Your task to perform on an android device: Open eBay Image 0: 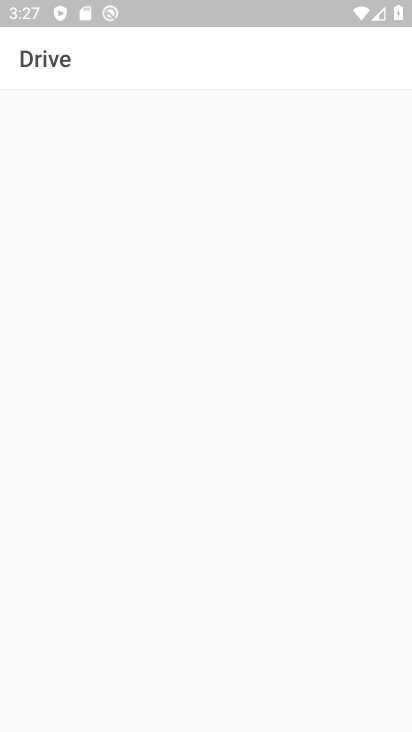
Step 0: press home button
Your task to perform on an android device: Open eBay Image 1: 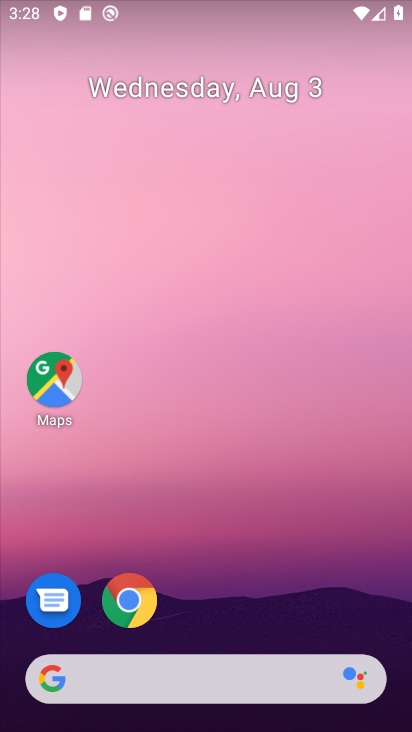
Step 1: drag from (213, 644) to (193, 270)
Your task to perform on an android device: Open eBay Image 2: 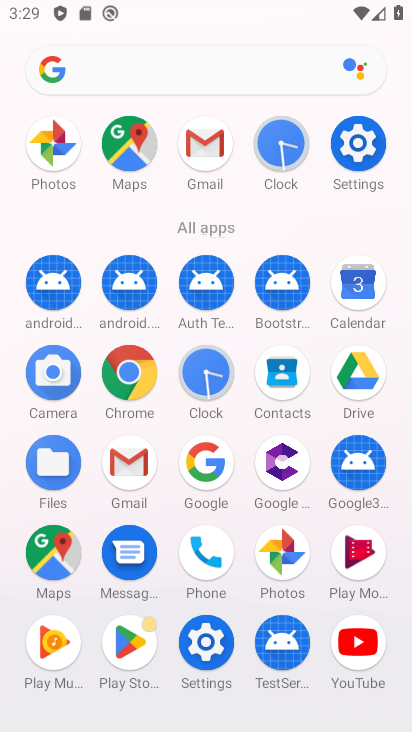
Step 2: click (127, 371)
Your task to perform on an android device: Open eBay Image 3: 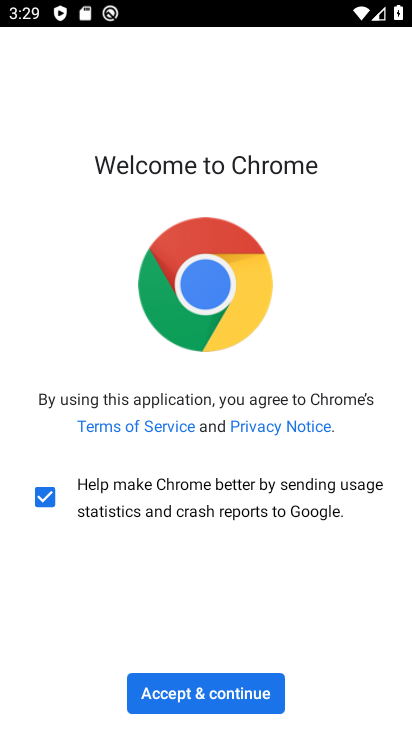
Step 3: press home button
Your task to perform on an android device: Open eBay Image 4: 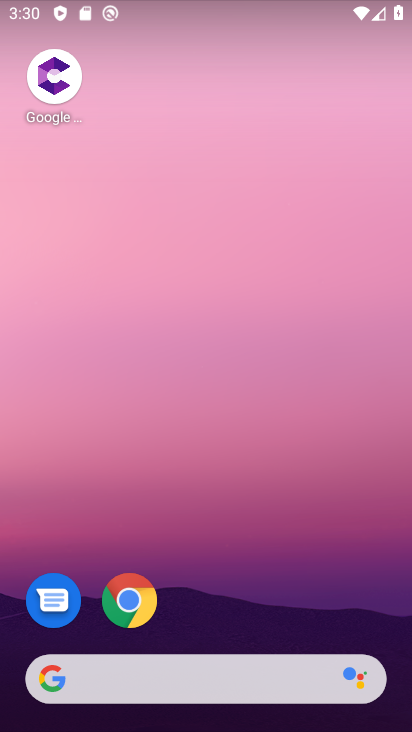
Step 4: click (134, 590)
Your task to perform on an android device: Open eBay Image 5: 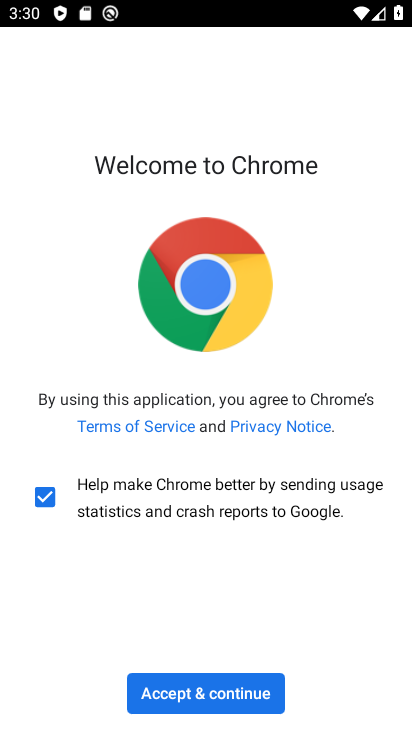
Step 5: click (267, 684)
Your task to perform on an android device: Open eBay Image 6: 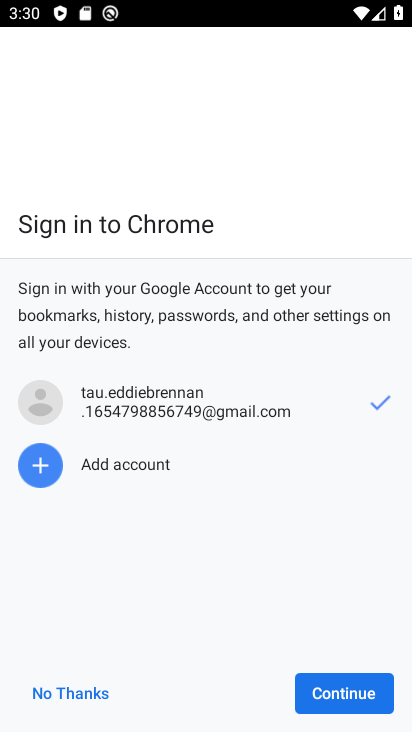
Step 6: click (77, 691)
Your task to perform on an android device: Open eBay Image 7: 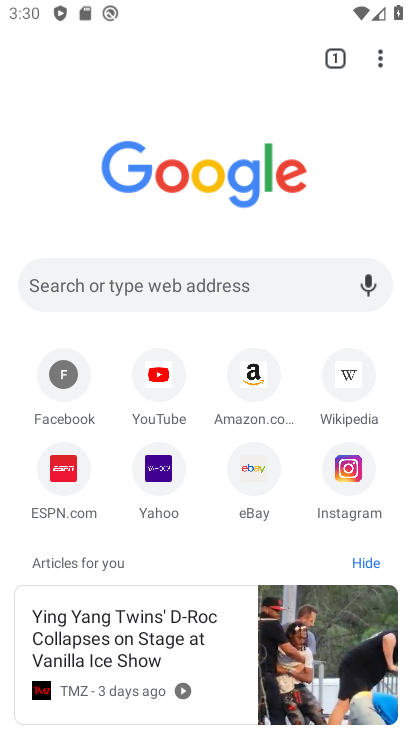
Step 7: click (247, 464)
Your task to perform on an android device: Open eBay Image 8: 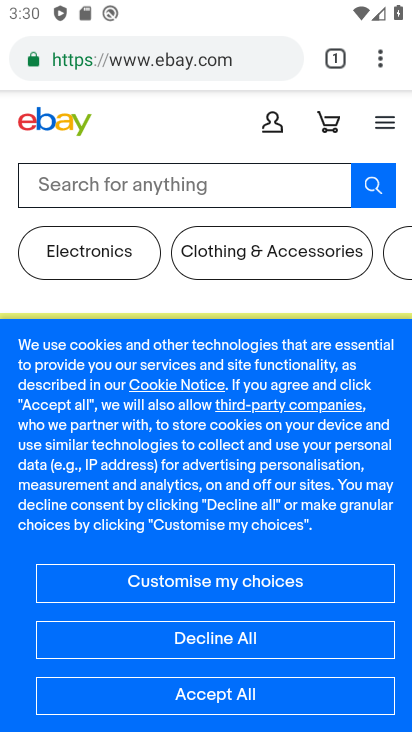
Step 8: task complete